Your task to perform on an android device: Search for Italian restaurants on Maps Image 0: 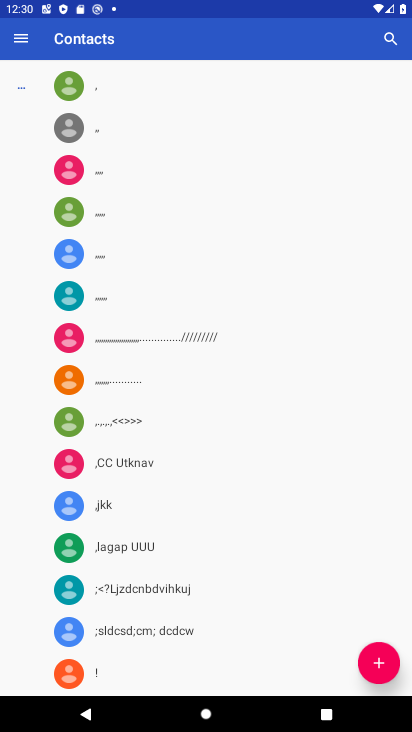
Step 0: press home button
Your task to perform on an android device: Search for Italian restaurants on Maps Image 1: 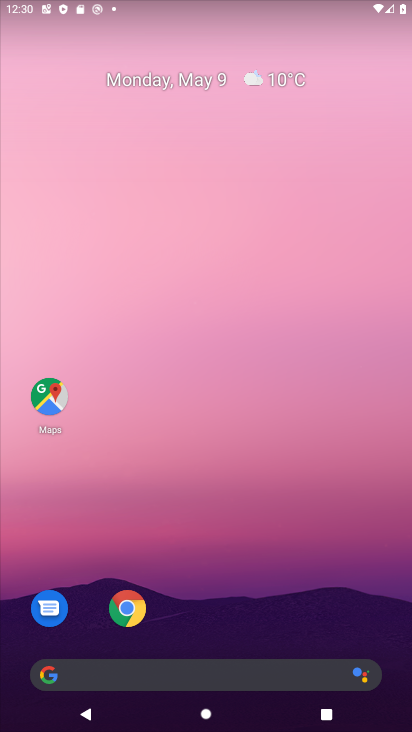
Step 1: drag from (234, 619) to (232, 262)
Your task to perform on an android device: Search for Italian restaurants on Maps Image 2: 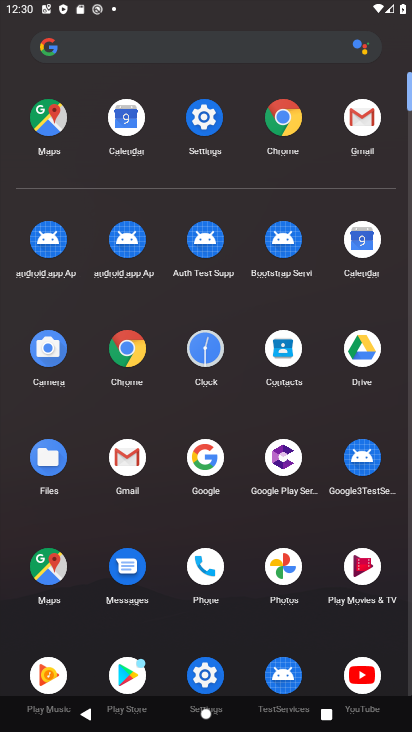
Step 2: click (65, 139)
Your task to perform on an android device: Search for Italian restaurants on Maps Image 3: 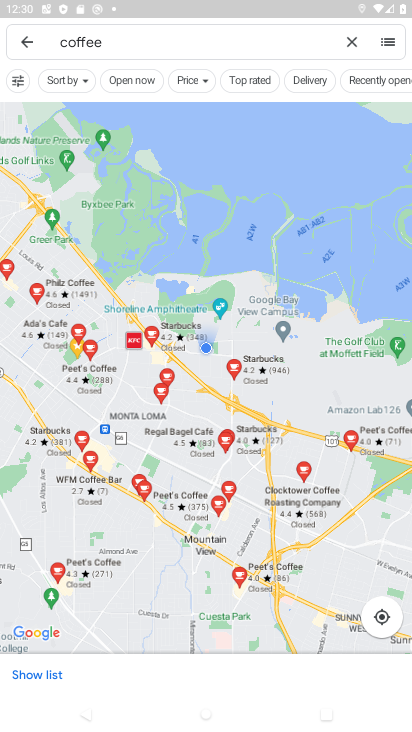
Step 3: click (349, 43)
Your task to perform on an android device: Search for Italian restaurants on Maps Image 4: 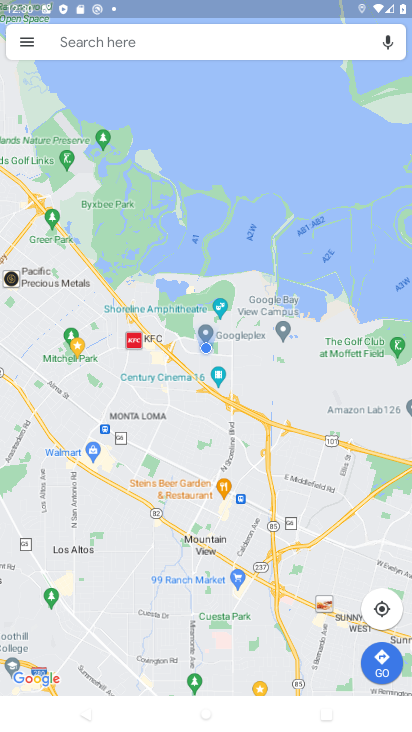
Step 4: click (349, 43)
Your task to perform on an android device: Search for Italian restaurants on Maps Image 5: 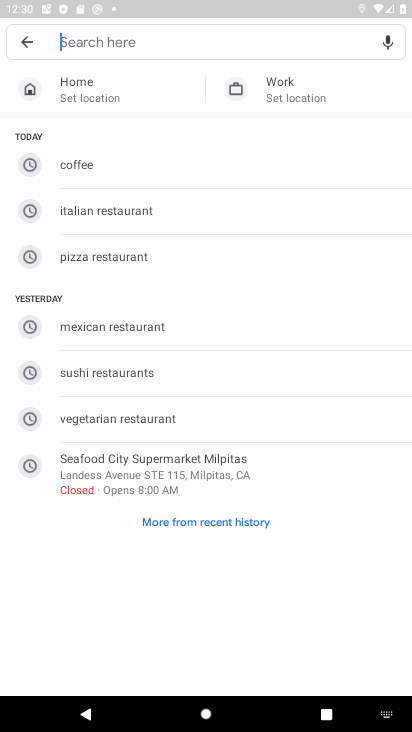
Step 5: click (169, 231)
Your task to perform on an android device: Search for Italian restaurants on Maps Image 6: 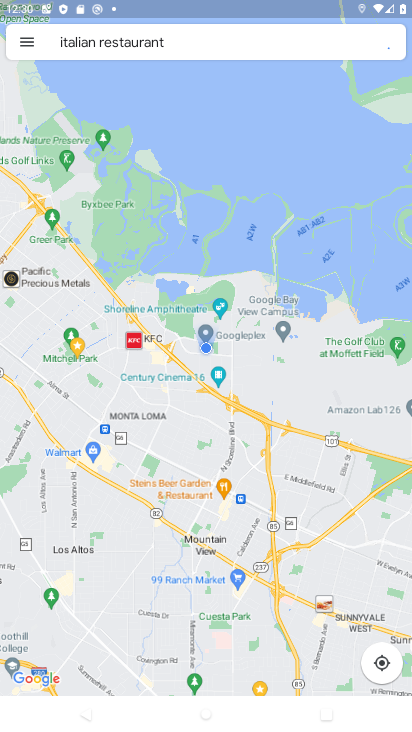
Step 6: task complete